Your task to perform on an android device: Go to Wikipedia Image 0: 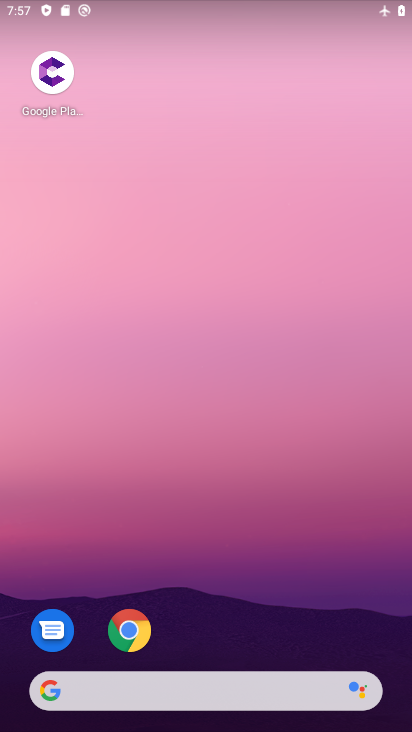
Step 0: click (127, 629)
Your task to perform on an android device: Go to Wikipedia Image 1: 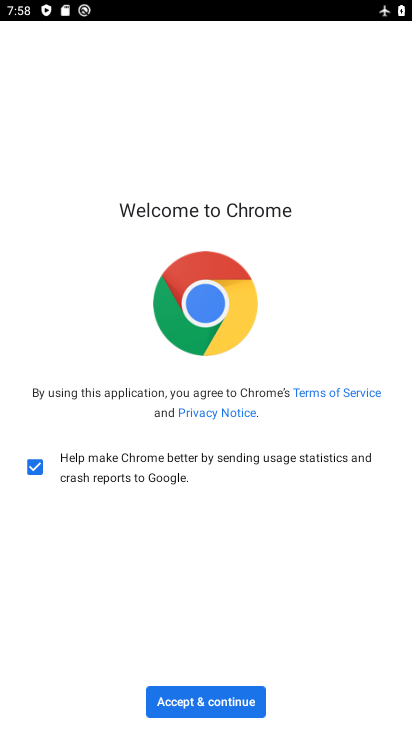
Step 1: click (189, 707)
Your task to perform on an android device: Go to Wikipedia Image 2: 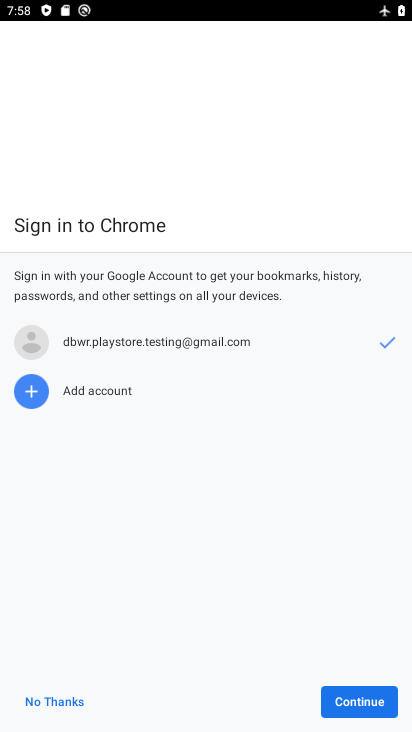
Step 2: click (374, 705)
Your task to perform on an android device: Go to Wikipedia Image 3: 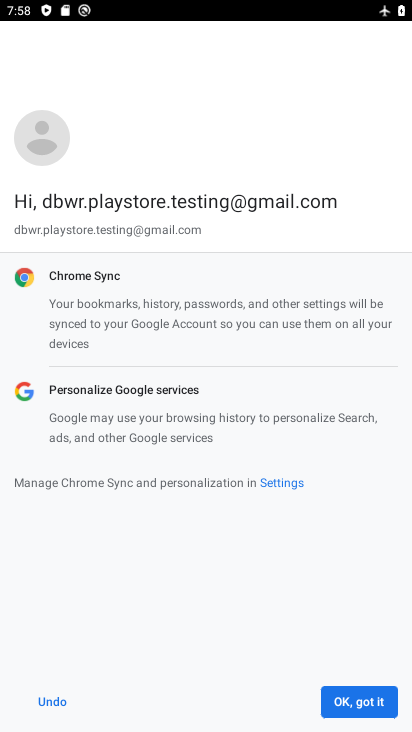
Step 3: click (350, 714)
Your task to perform on an android device: Go to Wikipedia Image 4: 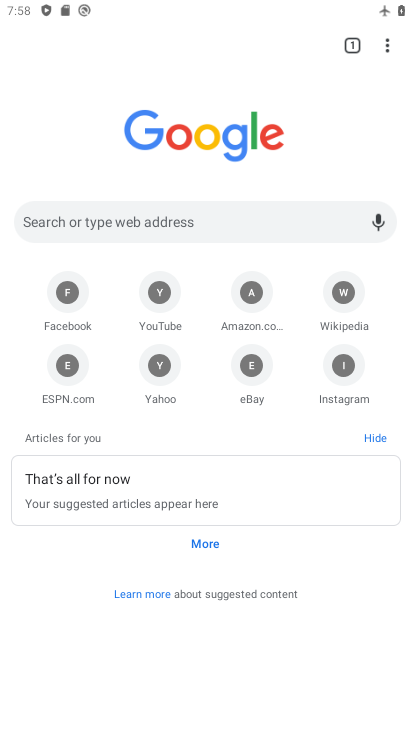
Step 4: click (77, 228)
Your task to perform on an android device: Go to Wikipedia Image 5: 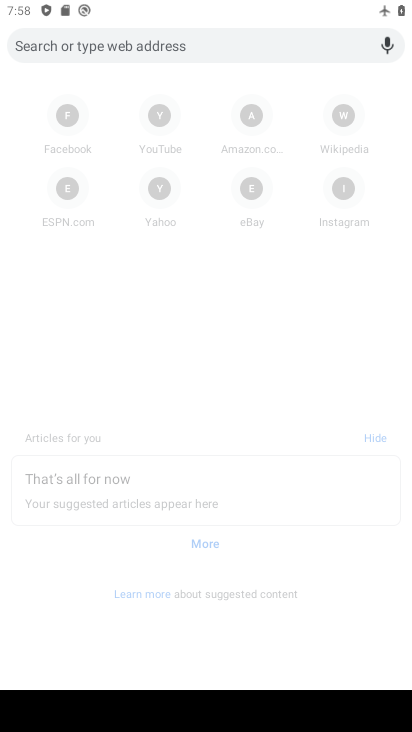
Step 5: type "wikipedia"
Your task to perform on an android device: Go to Wikipedia Image 6: 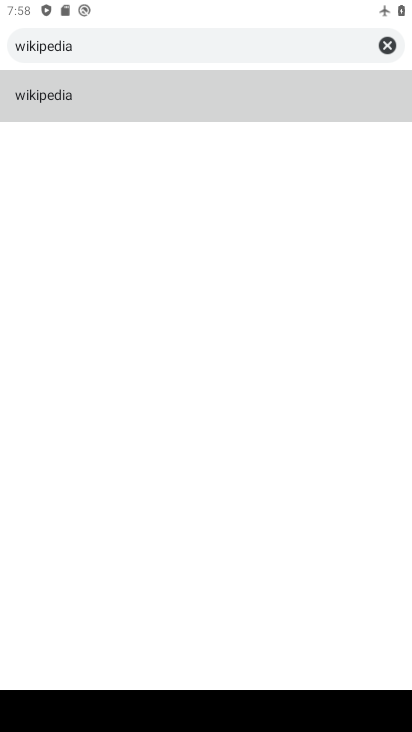
Step 6: click (94, 105)
Your task to perform on an android device: Go to Wikipedia Image 7: 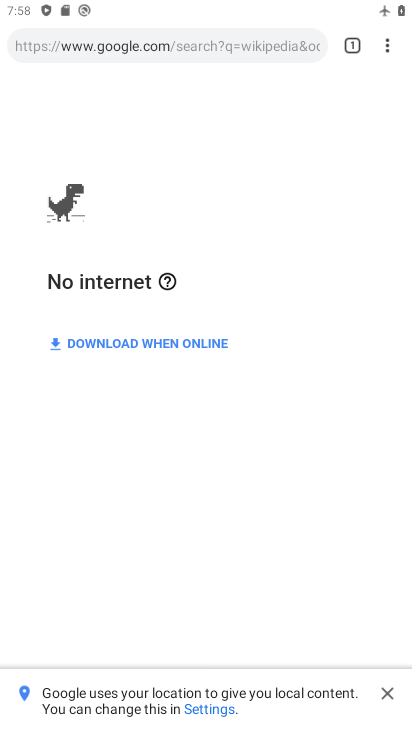
Step 7: task complete